Your task to perform on an android device: Open Chrome and go to the settings page Image 0: 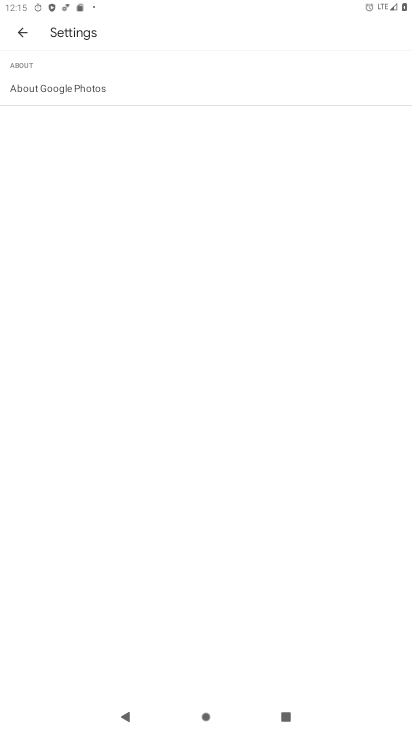
Step 0: press home button
Your task to perform on an android device: Open Chrome and go to the settings page Image 1: 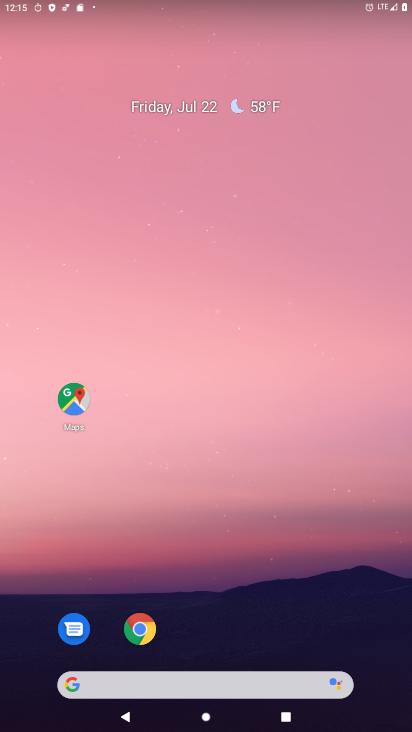
Step 1: drag from (335, 590) to (362, 145)
Your task to perform on an android device: Open Chrome and go to the settings page Image 2: 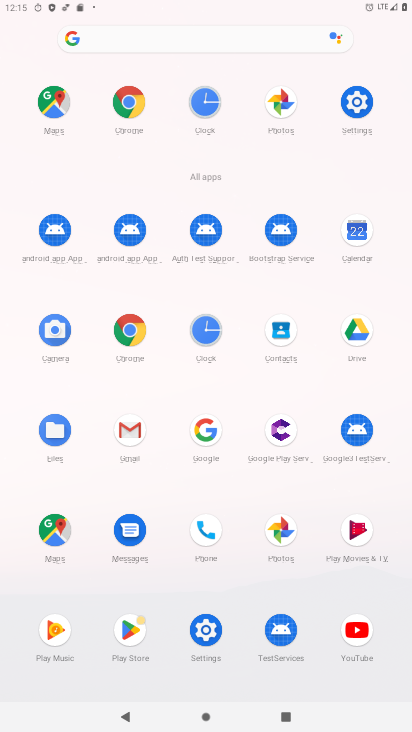
Step 2: click (140, 334)
Your task to perform on an android device: Open Chrome and go to the settings page Image 3: 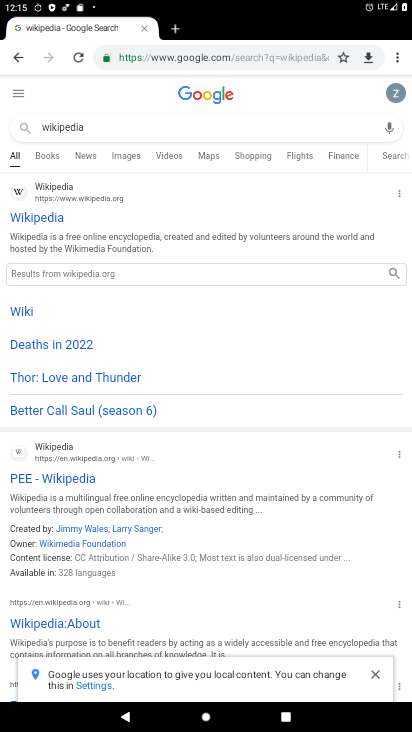
Step 3: click (400, 59)
Your task to perform on an android device: Open Chrome and go to the settings page Image 4: 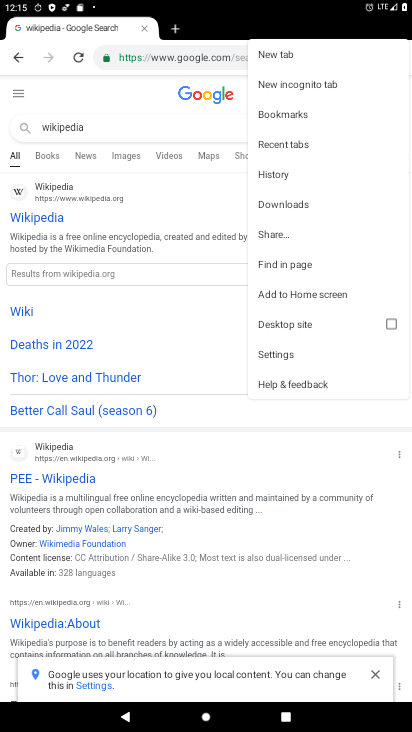
Step 4: click (292, 352)
Your task to perform on an android device: Open Chrome and go to the settings page Image 5: 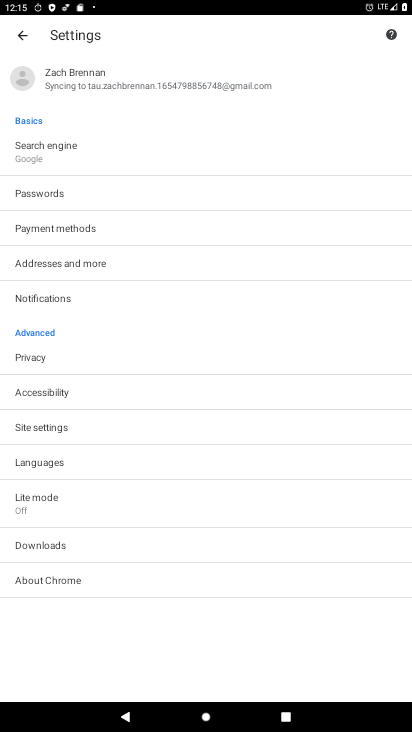
Step 5: task complete